Your task to perform on an android device: Open Youtube and go to the subscriptions tab Image 0: 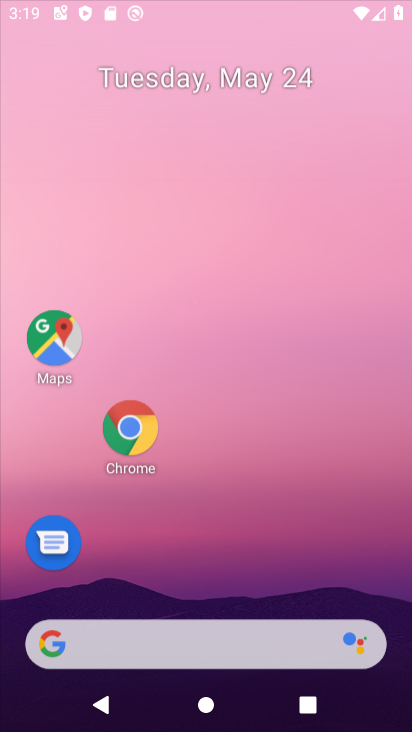
Step 0: drag from (237, 604) to (283, 41)
Your task to perform on an android device: Open Youtube and go to the subscriptions tab Image 1: 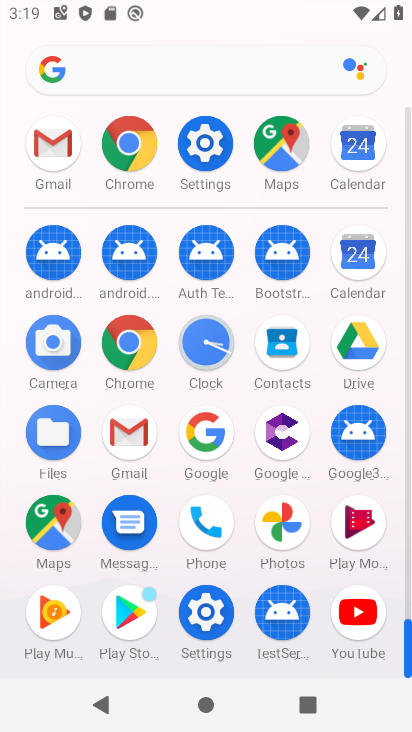
Step 1: click (353, 609)
Your task to perform on an android device: Open Youtube and go to the subscriptions tab Image 2: 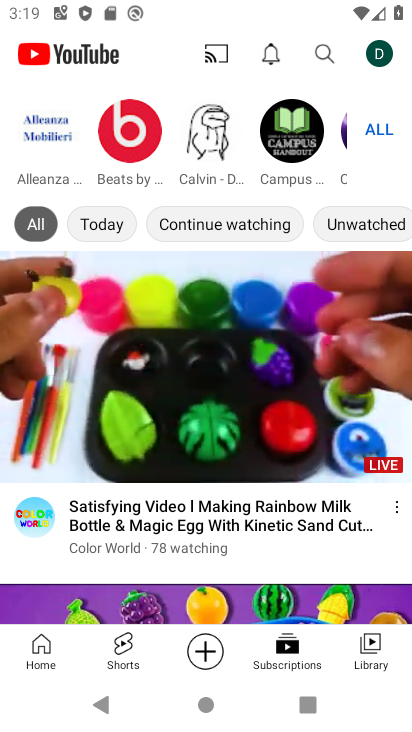
Step 2: click (284, 644)
Your task to perform on an android device: Open Youtube and go to the subscriptions tab Image 3: 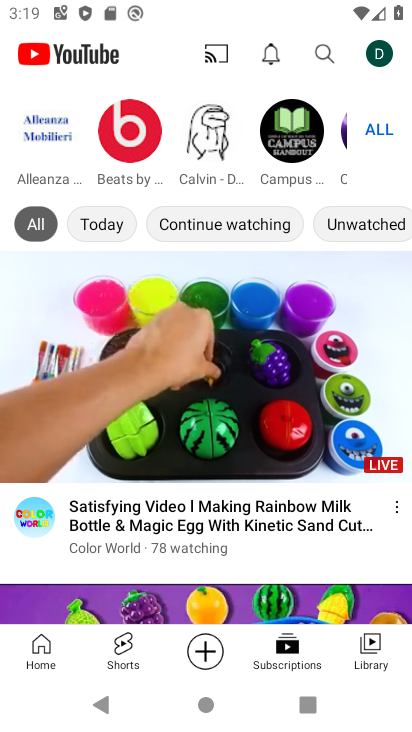
Step 3: task complete